Your task to perform on an android device: turn on javascript in the chrome app Image 0: 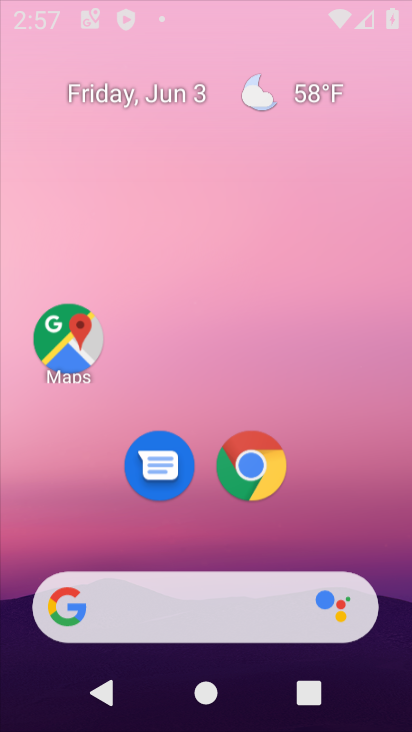
Step 0: click (193, 601)
Your task to perform on an android device: turn on javascript in the chrome app Image 1: 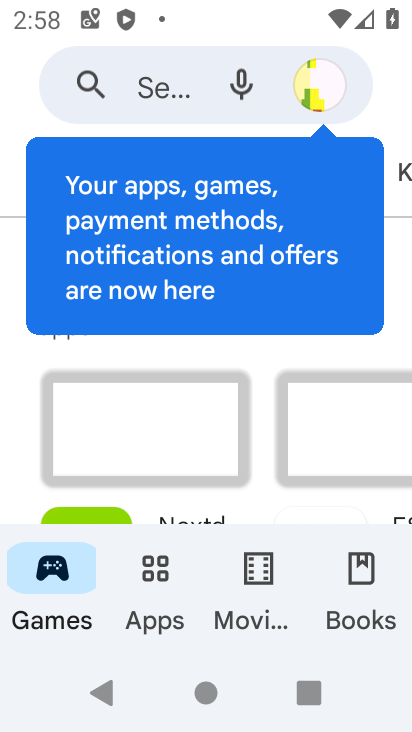
Step 1: press home button
Your task to perform on an android device: turn on javascript in the chrome app Image 2: 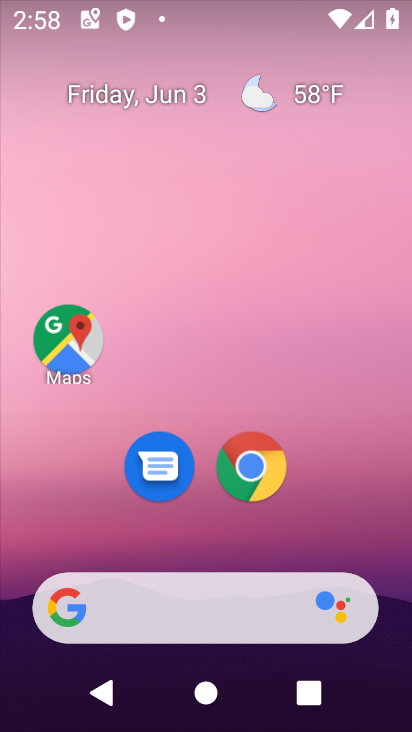
Step 2: click (231, 459)
Your task to perform on an android device: turn on javascript in the chrome app Image 3: 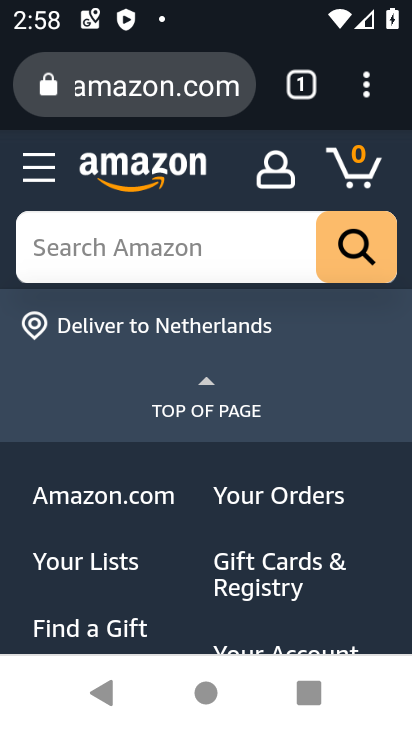
Step 3: click (373, 72)
Your task to perform on an android device: turn on javascript in the chrome app Image 4: 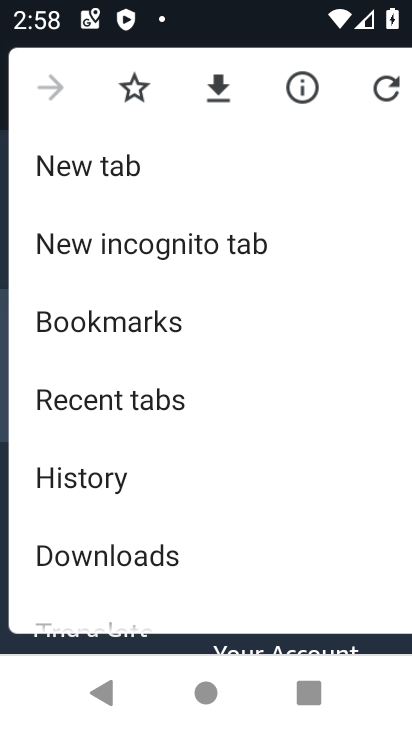
Step 4: drag from (257, 517) to (246, 193)
Your task to perform on an android device: turn on javascript in the chrome app Image 5: 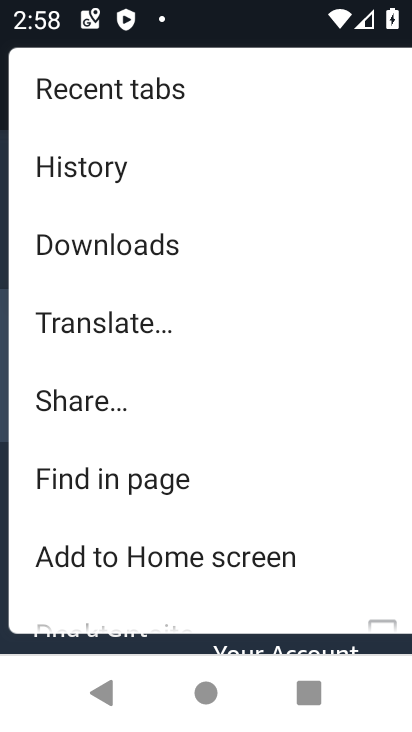
Step 5: drag from (278, 500) to (288, 165)
Your task to perform on an android device: turn on javascript in the chrome app Image 6: 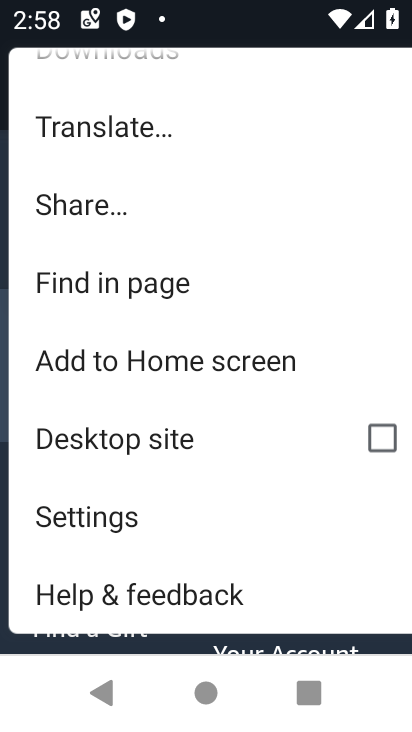
Step 6: click (156, 528)
Your task to perform on an android device: turn on javascript in the chrome app Image 7: 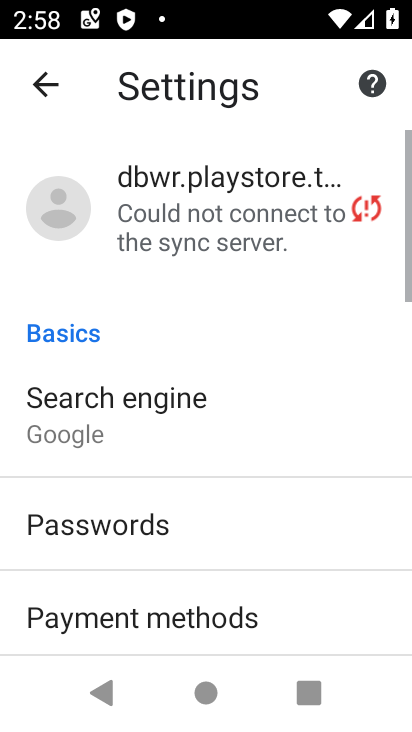
Step 7: drag from (245, 526) to (281, 181)
Your task to perform on an android device: turn on javascript in the chrome app Image 8: 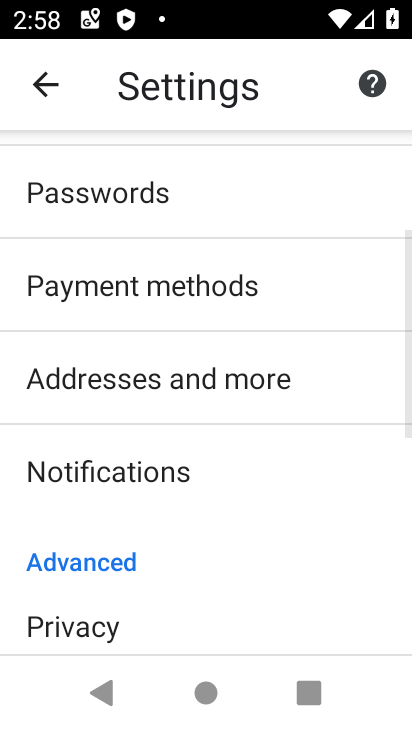
Step 8: drag from (264, 594) to (258, 231)
Your task to perform on an android device: turn on javascript in the chrome app Image 9: 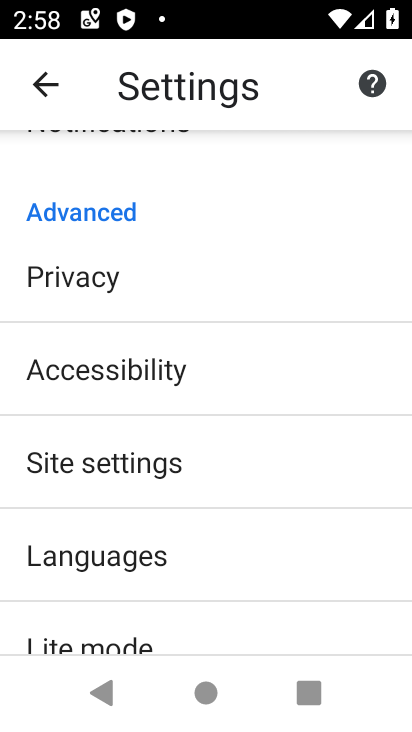
Step 9: click (202, 459)
Your task to perform on an android device: turn on javascript in the chrome app Image 10: 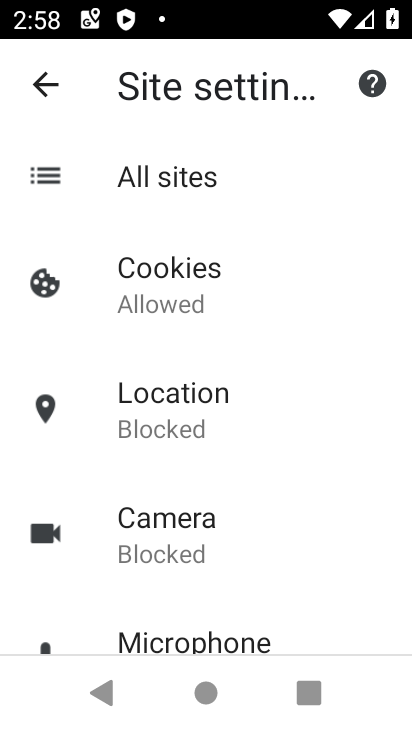
Step 10: drag from (237, 599) to (238, 257)
Your task to perform on an android device: turn on javascript in the chrome app Image 11: 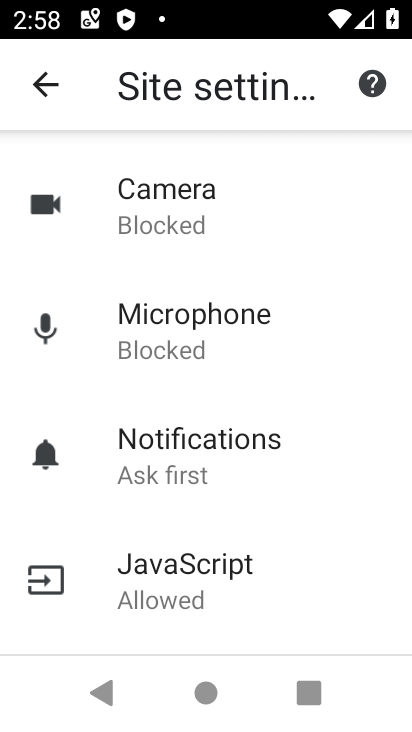
Step 11: drag from (246, 536) to (247, 240)
Your task to perform on an android device: turn on javascript in the chrome app Image 12: 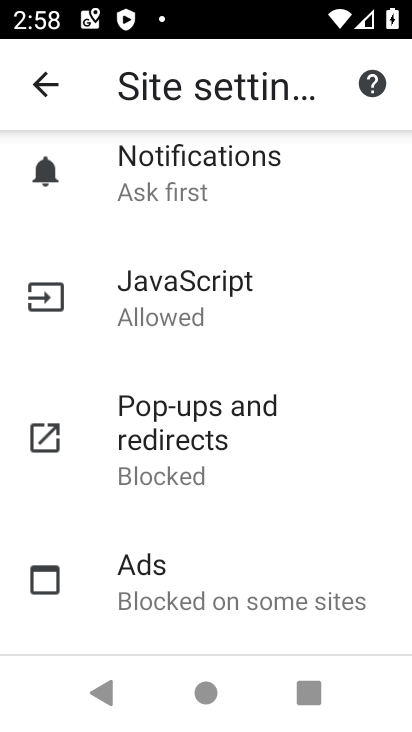
Step 12: click (215, 314)
Your task to perform on an android device: turn on javascript in the chrome app Image 13: 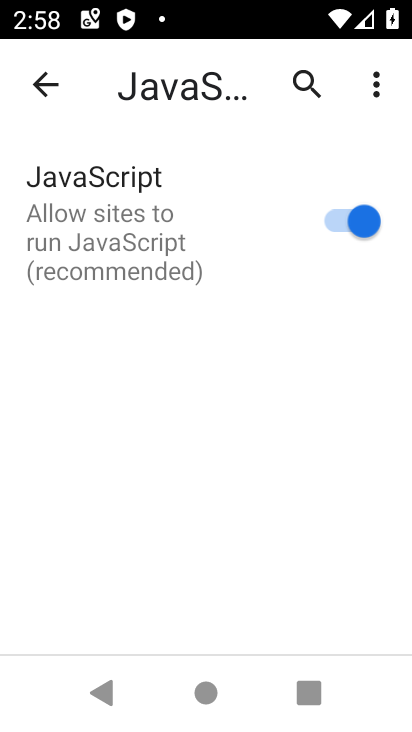
Step 13: task complete